Your task to perform on an android device: change keyboard looks Image 0: 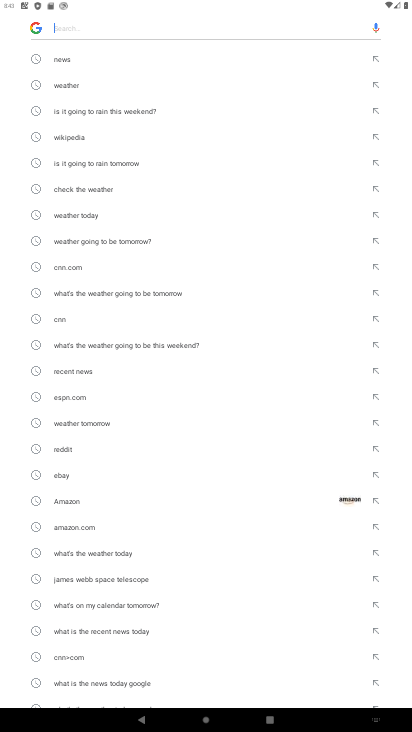
Step 0: task complete